Your task to perform on an android device: Open calendar and show me the first week of next month Image 0: 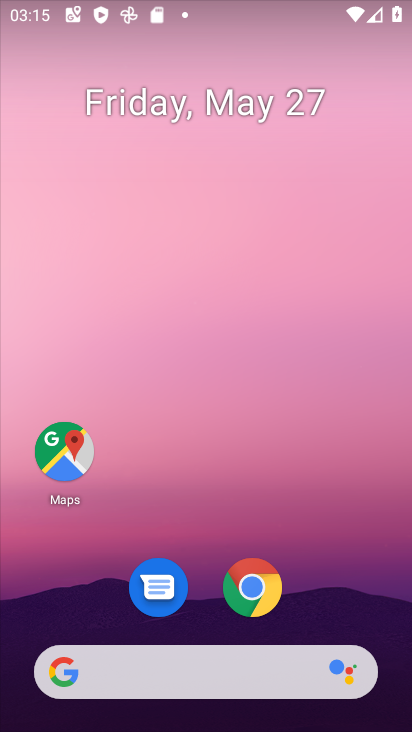
Step 0: drag from (346, 610) to (353, 171)
Your task to perform on an android device: Open calendar and show me the first week of next month Image 1: 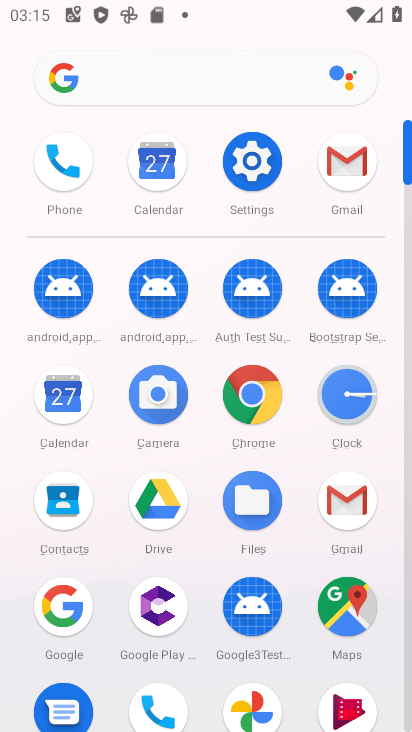
Step 1: click (71, 395)
Your task to perform on an android device: Open calendar and show me the first week of next month Image 2: 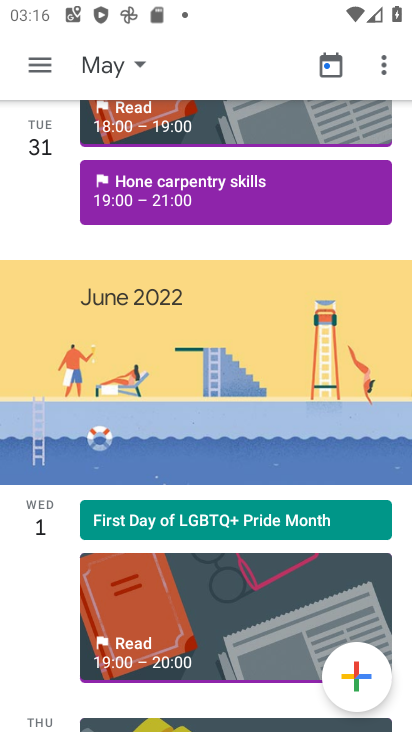
Step 2: task complete